Your task to perform on an android device: turn on priority inbox in the gmail app Image 0: 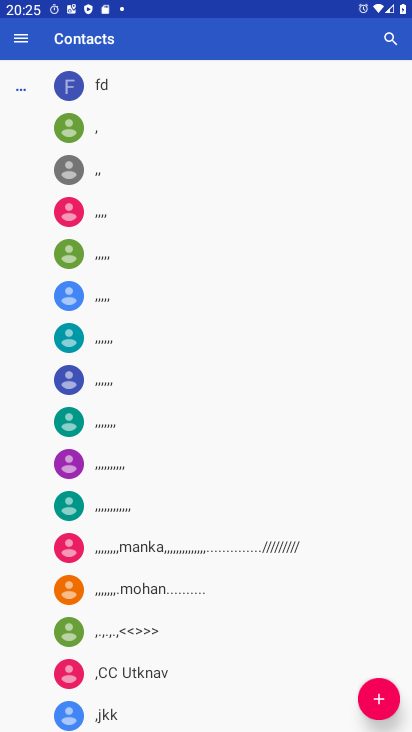
Step 0: press home button
Your task to perform on an android device: turn on priority inbox in the gmail app Image 1: 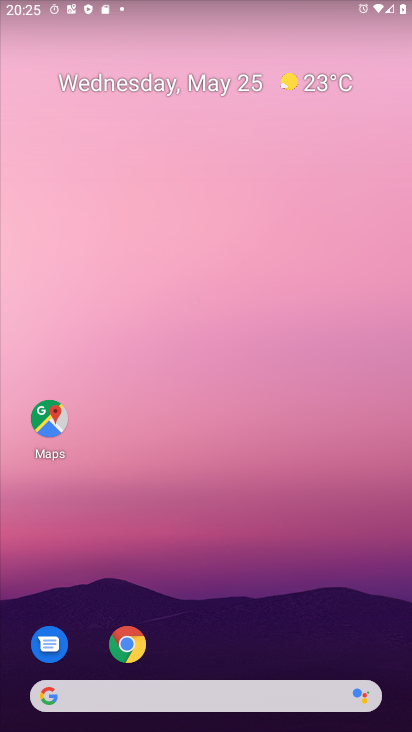
Step 1: drag from (223, 712) to (290, 162)
Your task to perform on an android device: turn on priority inbox in the gmail app Image 2: 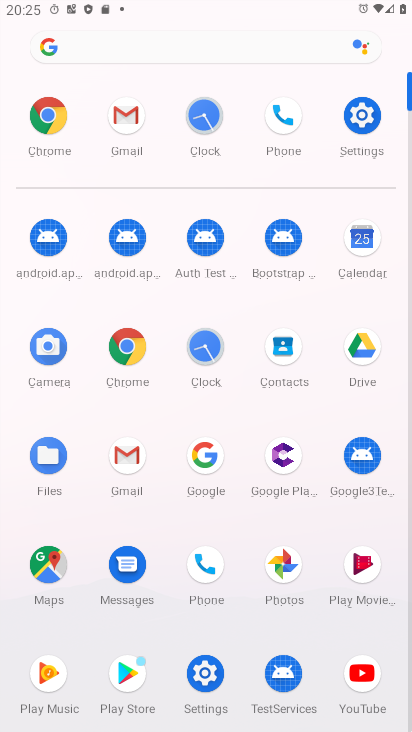
Step 2: click (125, 120)
Your task to perform on an android device: turn on priority inbox in the gmail app Image 3: 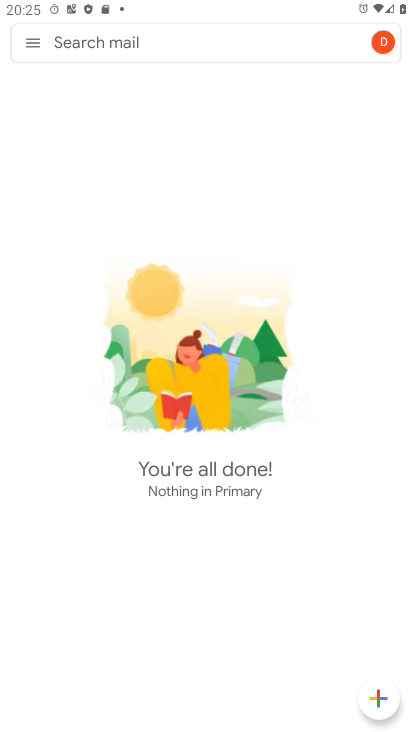
Step 3: click (32, 47)
Your task to perform on an android device: turn on priority inbox in the gmail app Image 4: 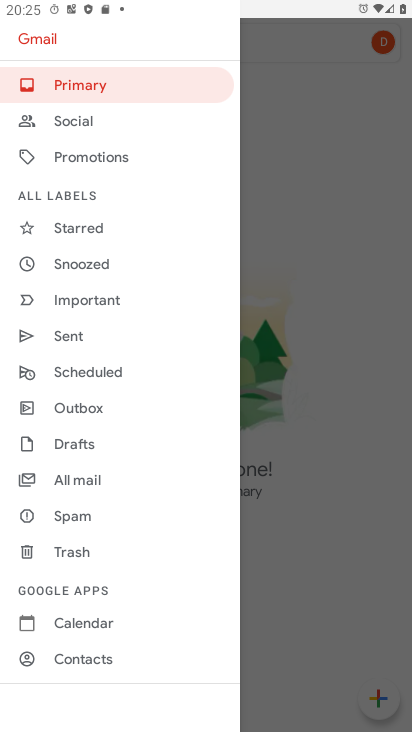
Step 4: drag from (78, 616) to (102, 526)
Your task to perform on an android device: turn on priority inbox in the gmail app Image 5: 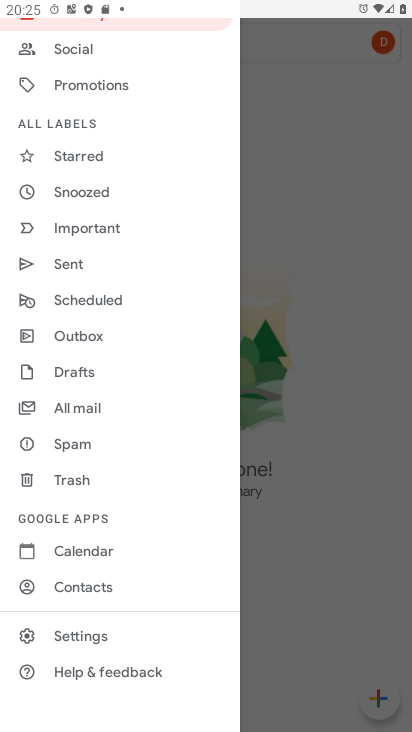
Step 5: click (80, 630)
Your task to perform on an android device: turn on priority inbox in the gmail app Image 6: 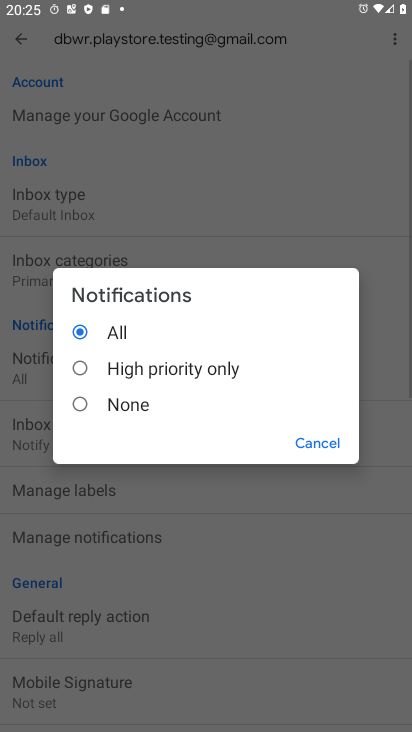
Step 6: click (321, 451)
Your task to perform on an android device: turn on priority inbox in the gmail app Image 7: 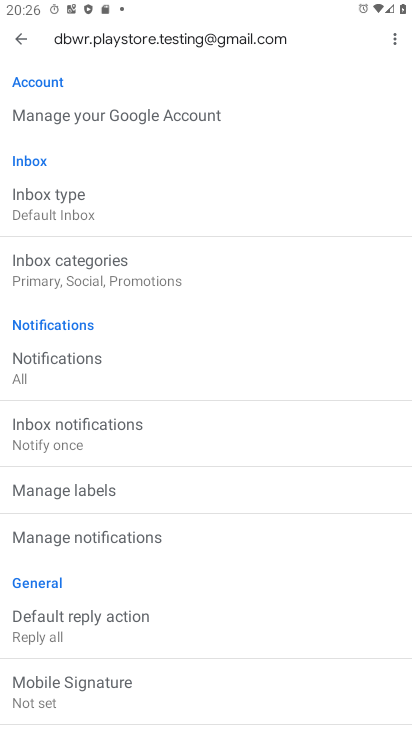
Step 7: click (45, 210)
Your task to perform on an android device: turn on priority inbox in the gmail app Image 8: 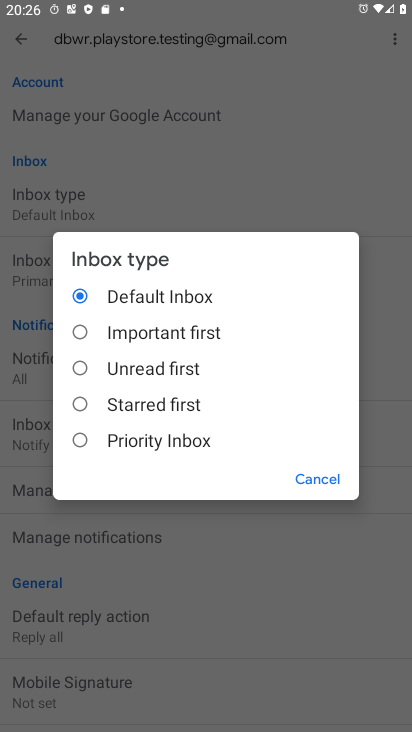
Step 8: click (145, 421)
Your task to perform on an android device: turn on priority inbox in the gmail app Image 9: 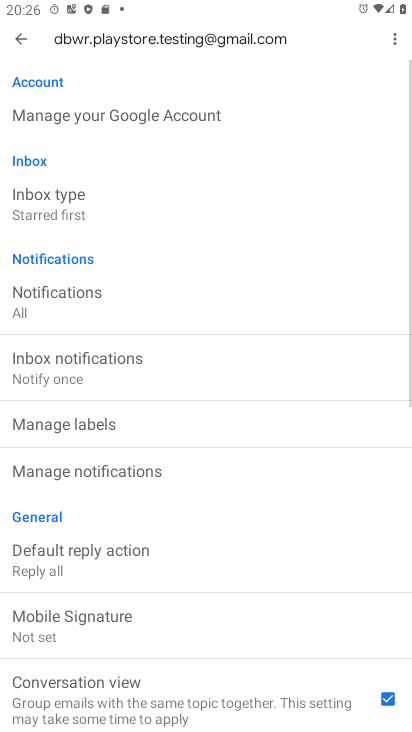
Step 9: click (98, 207)
Your task to perform on an android device: turn on priority inbox in the gmail app Image 10: 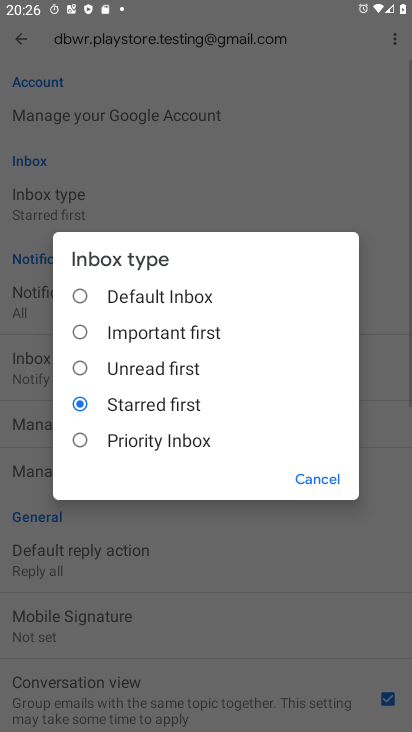
Step 10: click (150, 441)
Your task to perform on an android device: turn on priority inbox in the gmail app Image 11: 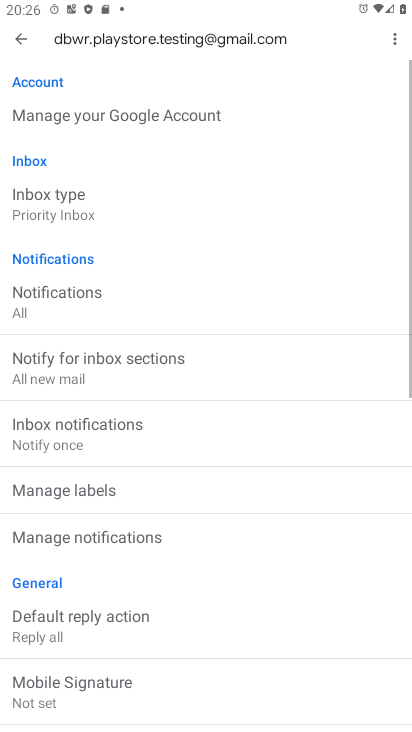
Step 11: task complete